Your task to perform on an android device: turn on translation in the chrome app Image 0: 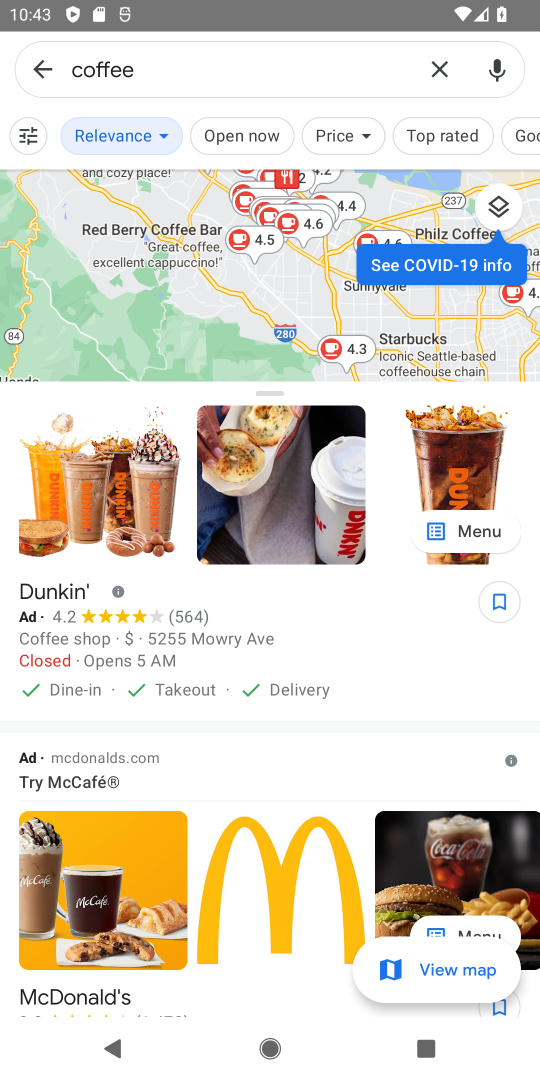
Step 0: press home button
Your task to perform on an android device: turn on translation in the chrome app Image 1: 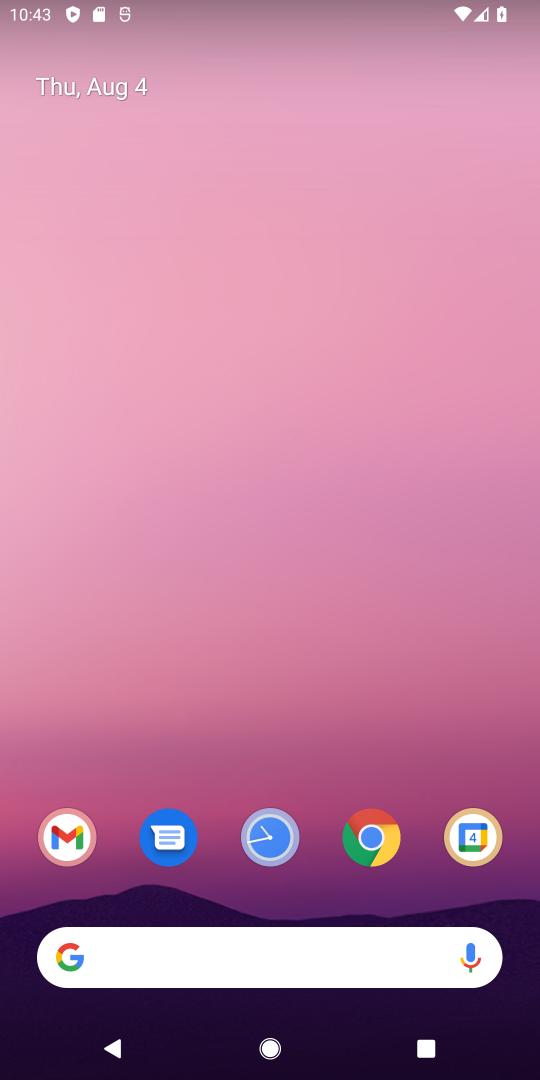
Step 1: drag from (432, 882) to (240, 48)
Your task to perform on an android device: turn on translation in the chrome app Image 2: 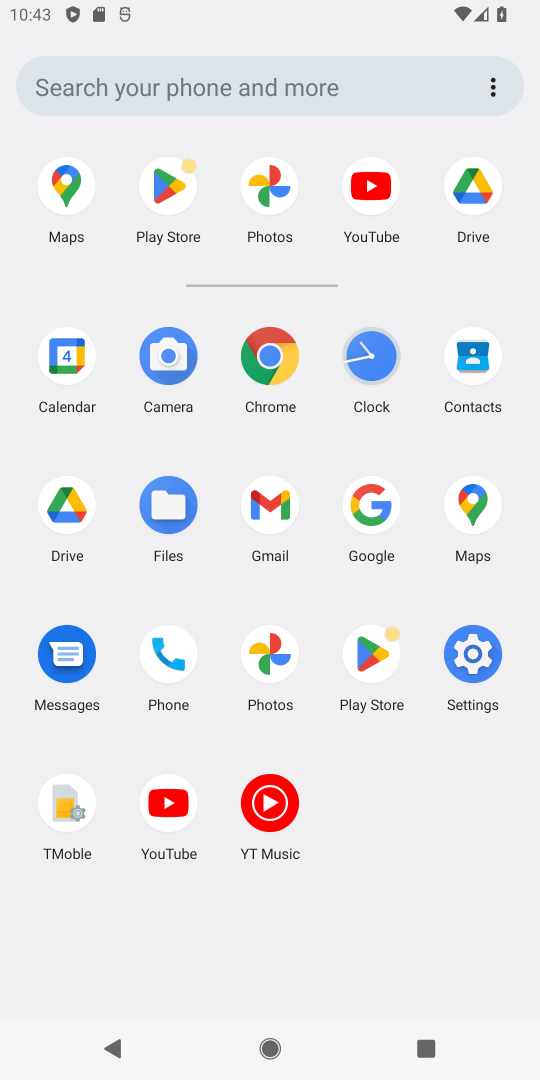
Step 2: click (290, 359)
Your task to perform on an android device: turn on translation in the chrome app Image 3: 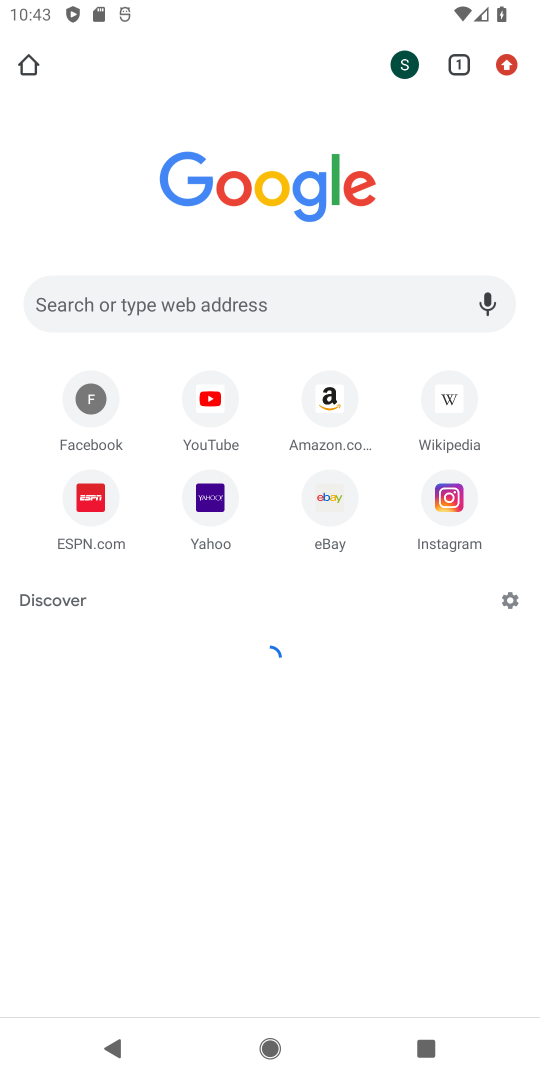
Step 3: click (509, 66)
Your task to perform on an android device: turn on translation in the chrome app Image 4: 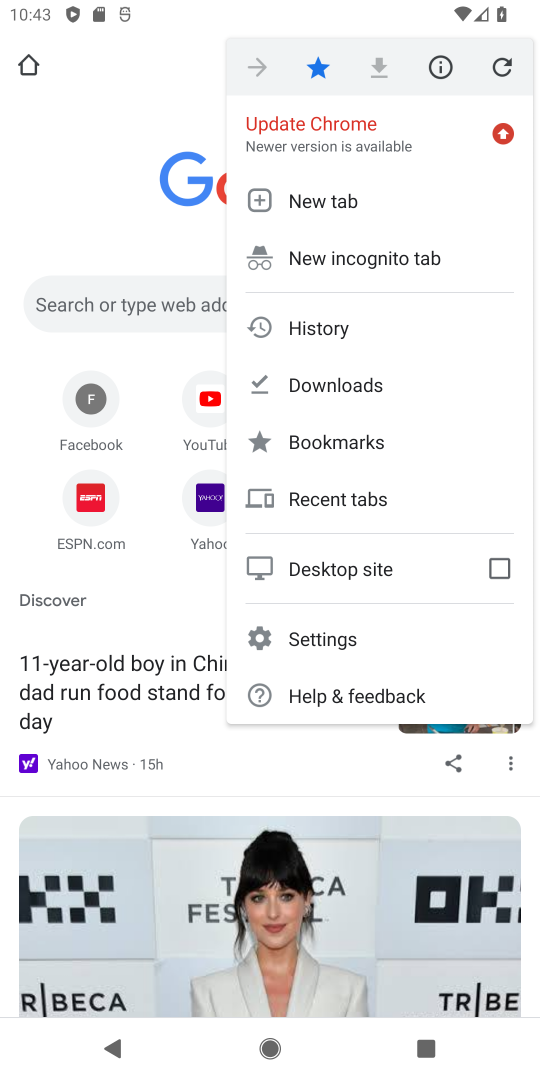
Step 4: click (331, 636)
Your task to perform on an android device: turn on translation in the chrome app Image 5: 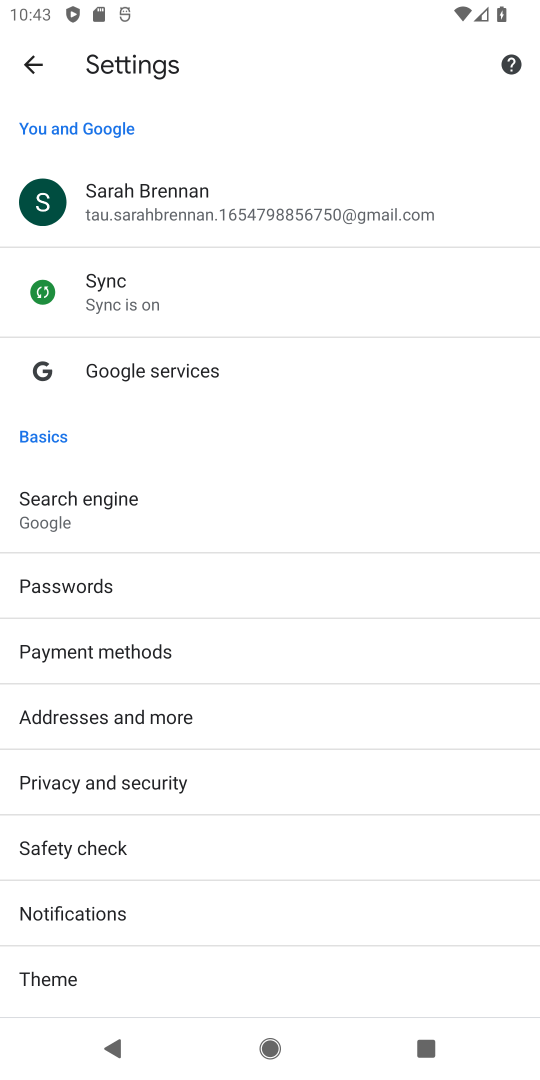
Step 5: drag from (97, 911) to (81, 415)
Your task to perform on an android device: turn on translation in the chrome app Image 6: 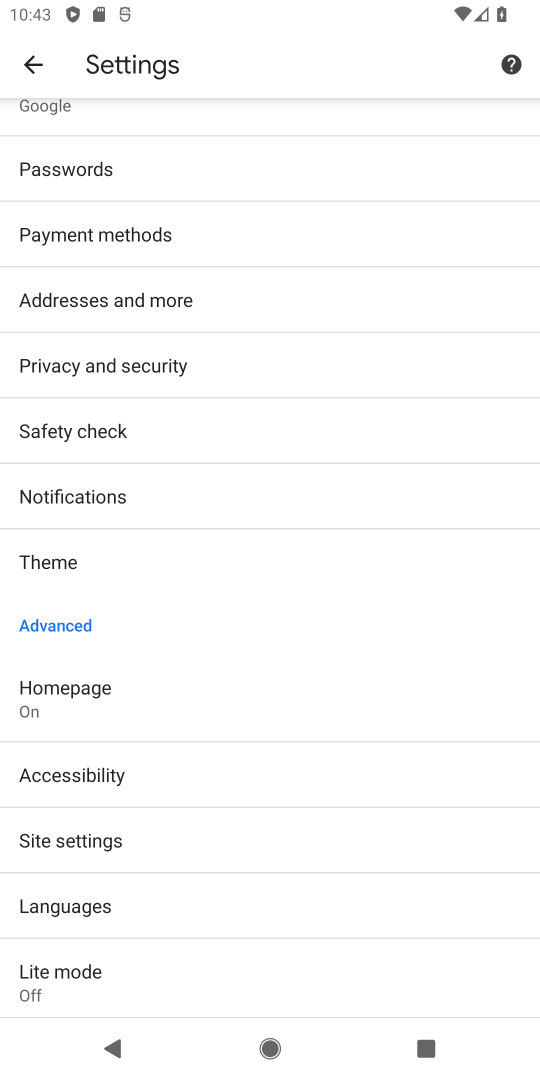
Step 6: click (86, 897)
Your task to perform on an android device: turn on translation in the chrome app Image 7: 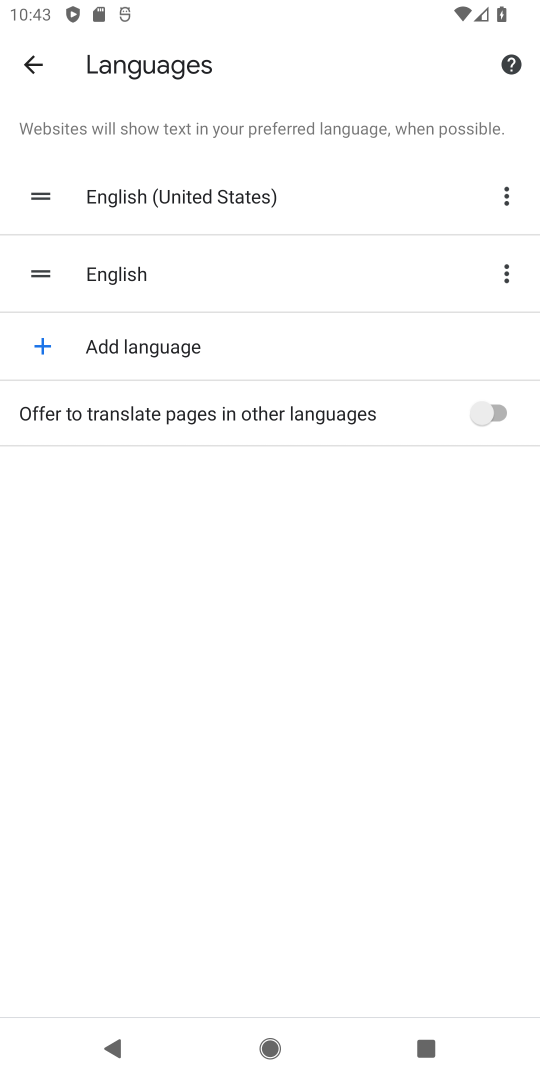
Step 7: click (469, 419)
Your task to perform on an android device: turn on translation in the chrome app Image 8: 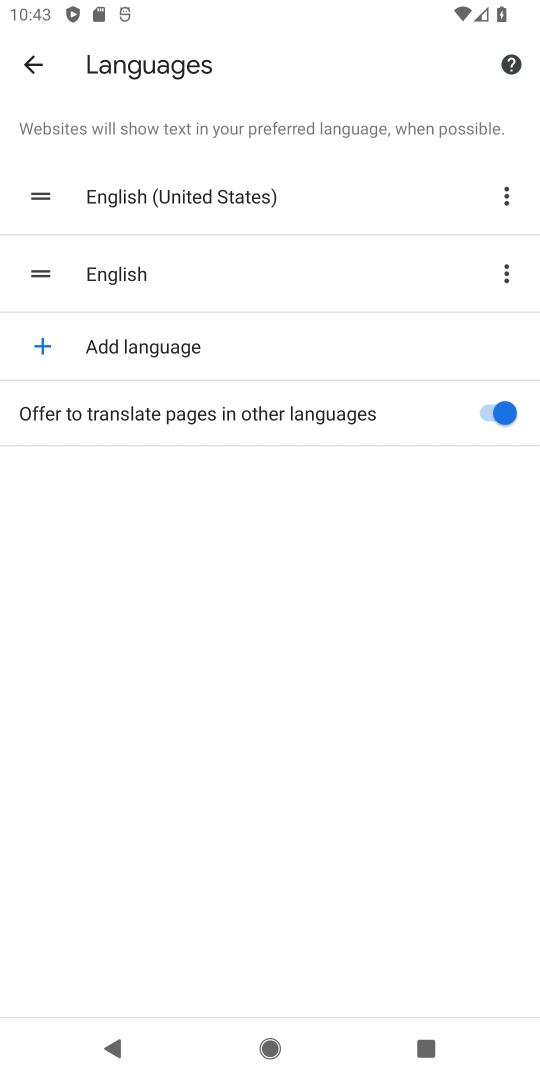
Step 8: task complete